Your task to perform on an android device: turn on data saver in the chrome app Image 0: 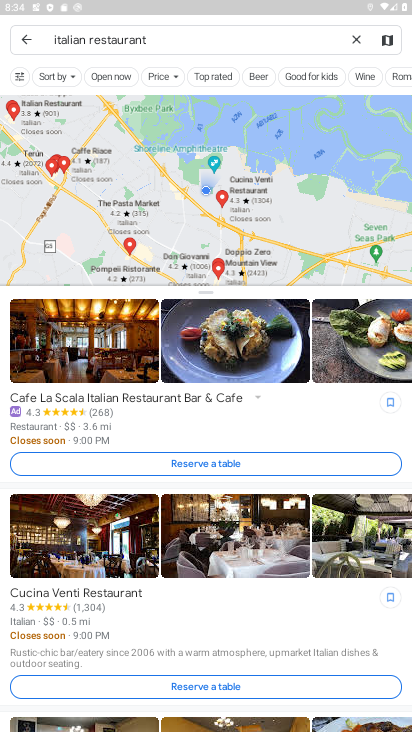
Step 0: press home button
Your task to perform on an android device: turn on data saver in the chrome app Image 1: 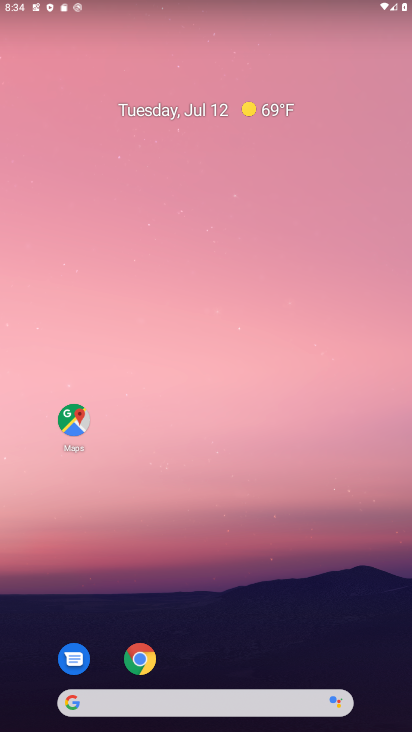
Step 1: click (141, 656)
Your task to perform on an android device: turn on data saver in the chrome app Image 2: 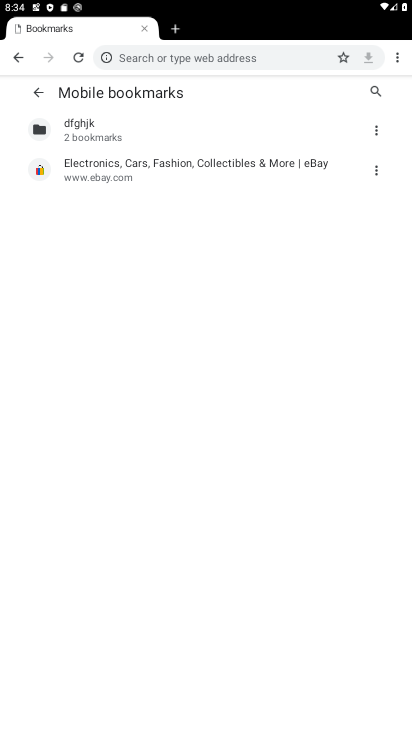
Step 2: click (398, 59)
Your task to perform on an android device: turn on data saver in the chrome app Image 3: 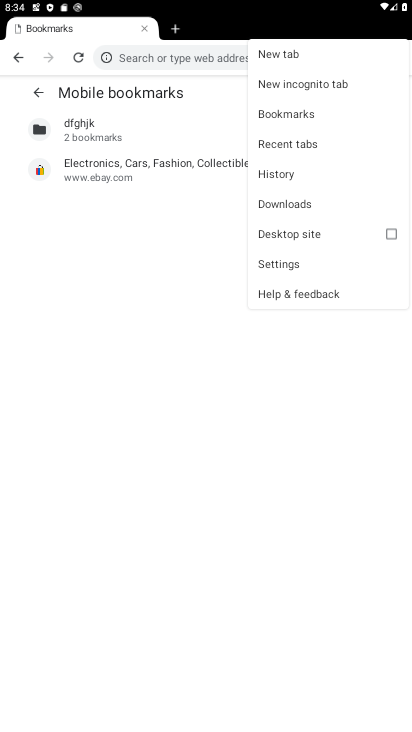
Step 3: click (266, 264)
Your task to perform on an android device: turn on data saver in the chrome app Image 4: 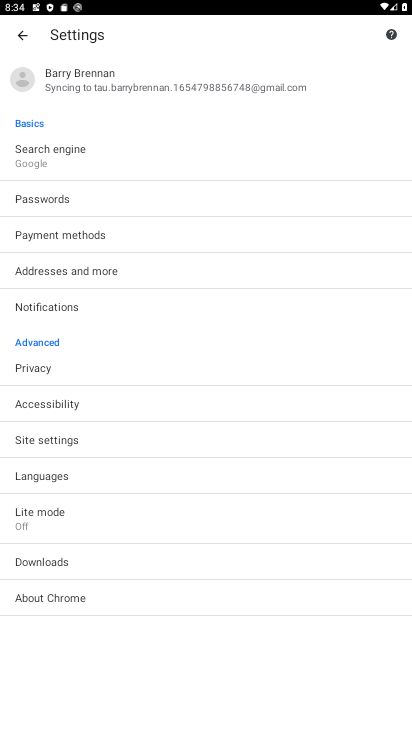
Step 4: click (49, 509)
Your task to perform on an android device: turn on data saver in the chrome app Image 5: 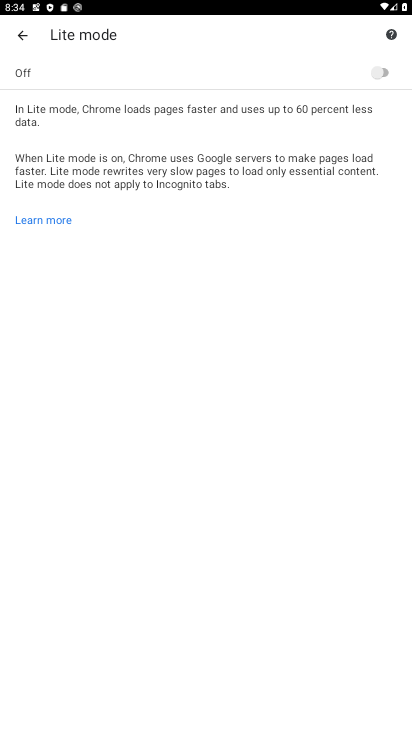
Step 5: click (383, 71)
Your task to perform on an android device: turn on data saver in the chrome app Image 6: 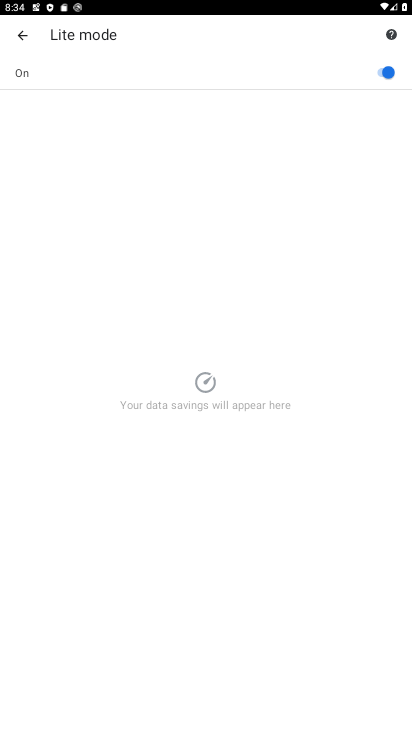
Step 6: task complete